Your task to perform on an android device: toggle wifi Image 0: 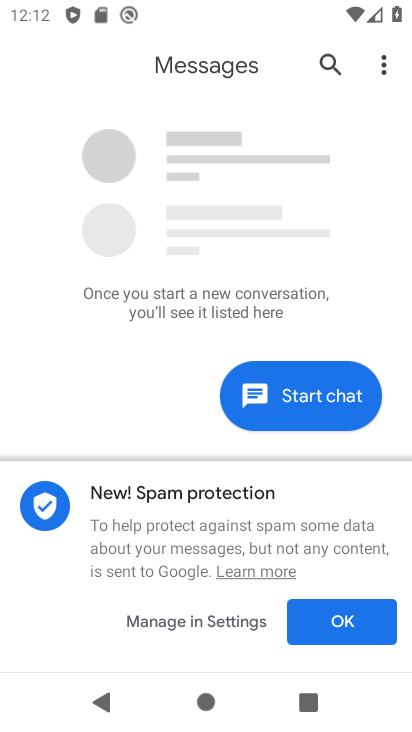
Step 0: drag from (218, 1) to (262, 612)
Your task to perform on an android device: toggle wifi Image 1: 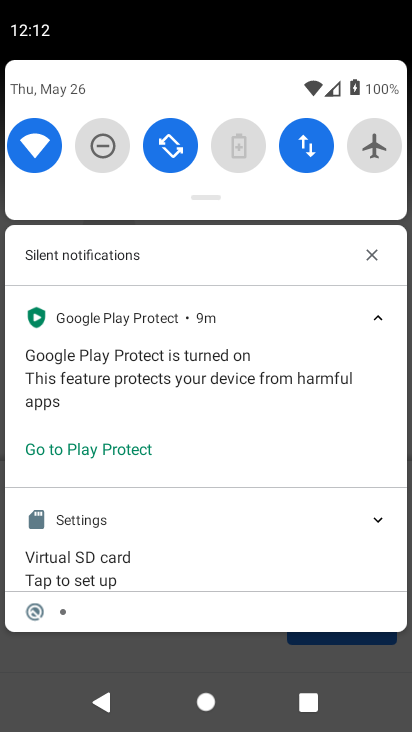
Step 1: click (40, 161)
Your task to perform on an android device: toggle wifi Image 2: 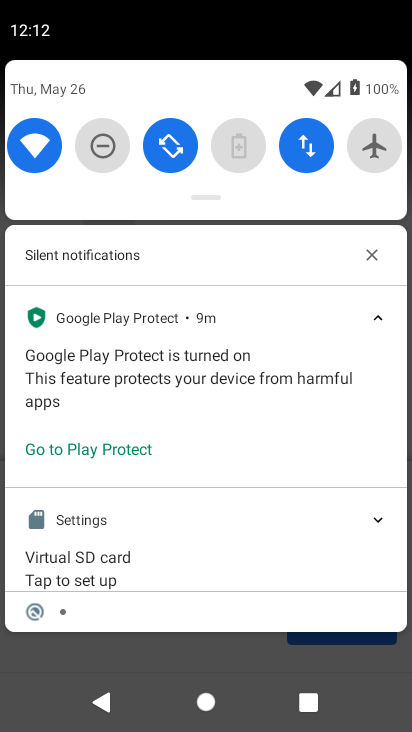
Step 2: click (40, 161)
Your task to perform on an android device: toggle wifi Image 3: 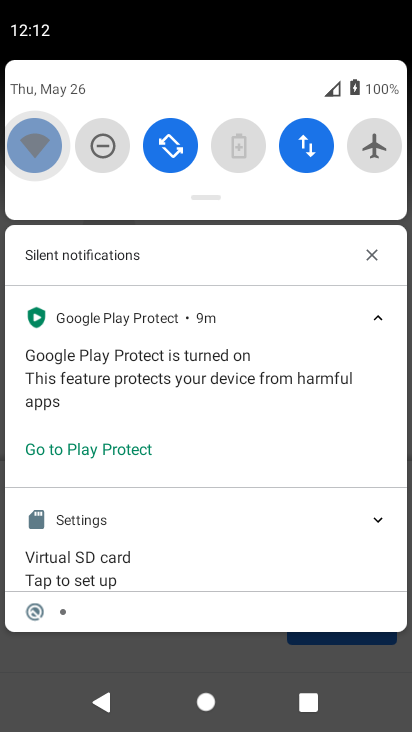
Step 3: click (40, 161)
Your task to perform on an android device: toggle wifi Image 4: 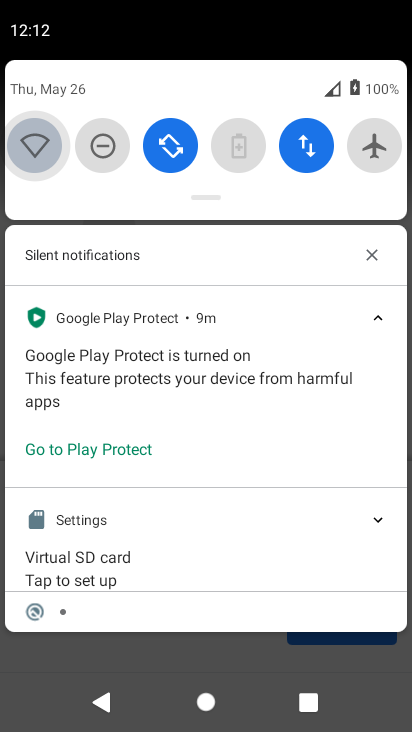
Step 4: click (40, 161)
Your task to perform on an android device: toggle wifi Image 5: 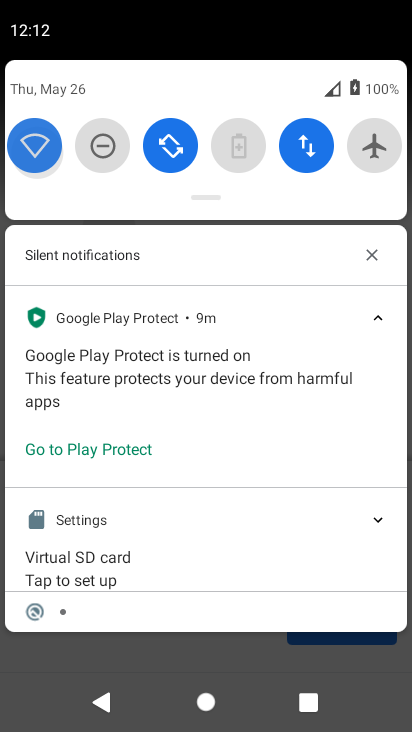
Step 5: click (40, 161)
Your task to perform on an android device: toggle wifi Image 6: 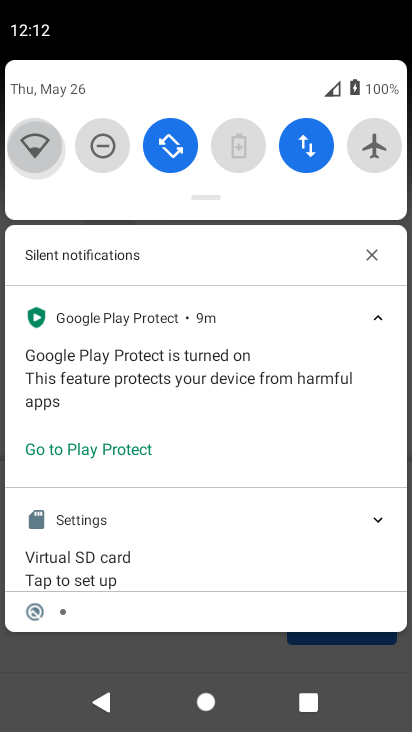
Step 6: click (40, 161)
Your task to perform on an android device: toggle wifi Image 7: 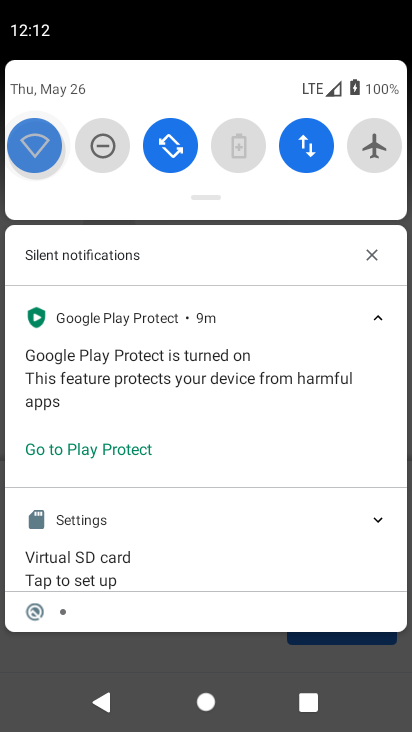
Step 7: click (40, 161)
Your task to perform on an android device: toggle wifi Image 8: 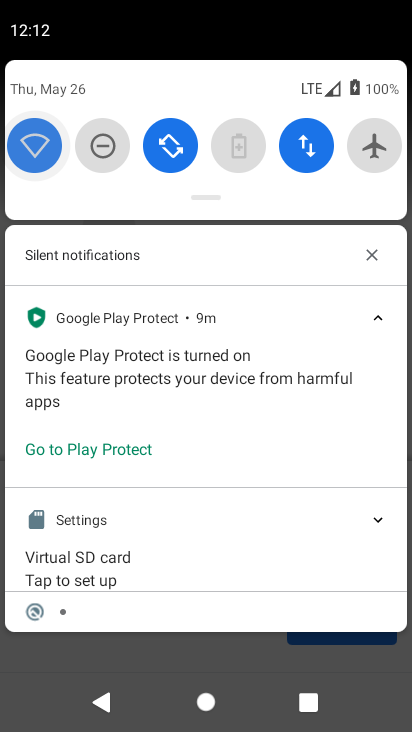
Step 8: click (40, 161)
Your task to perform on an android device: toggle wifi Image 9: 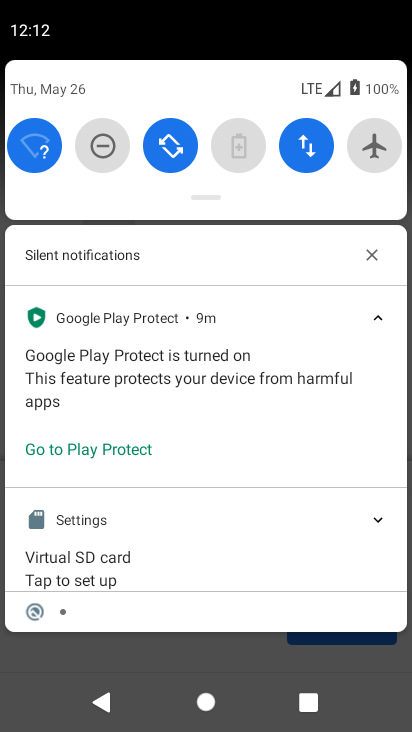
Step 9: task complete